Your task to perform on an android device: change notifications settings Image 0: 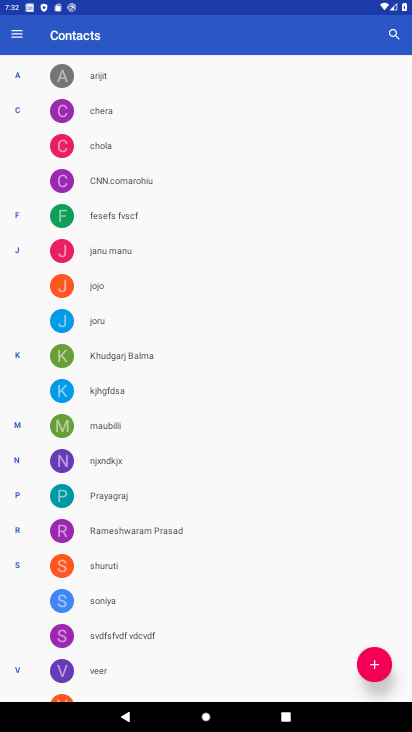
Step 0: press home button
Your task to perform on an android device: change notifications settings Image 1: 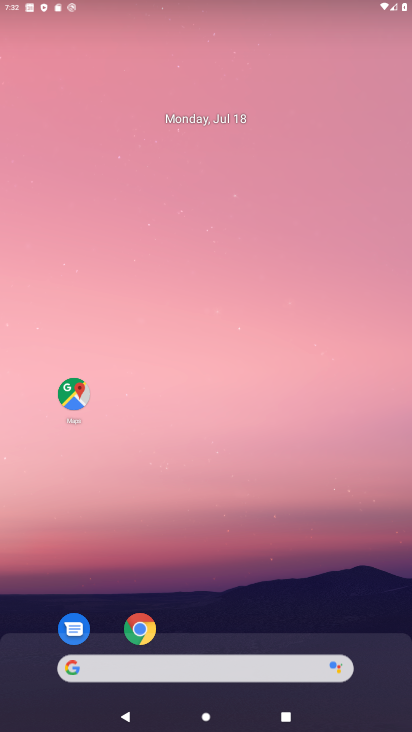
Step 1: drag from (32, 578) to (264, 90)
Your task to perform on an android device: change notifications settings Image 2: 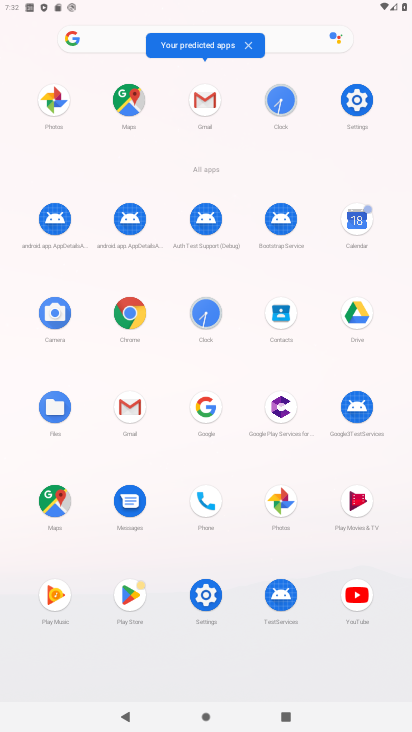
Step 2: click (349, 94)
Your task to perform on an android device: change notifications settings Image 3: 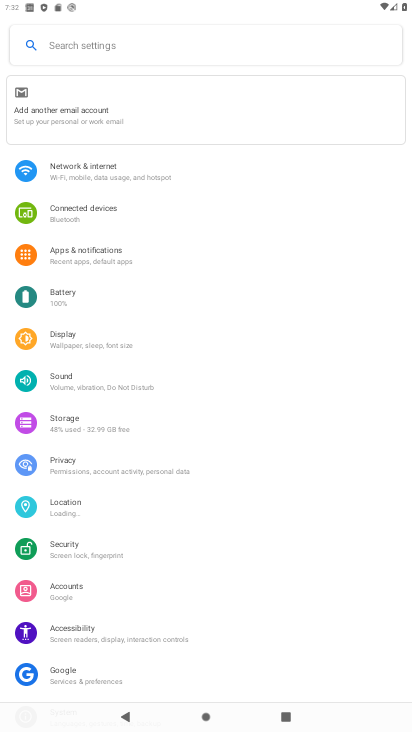
Step 3: click (52, 256)
Your task to perform on an android device: change notifications settings Image 4: 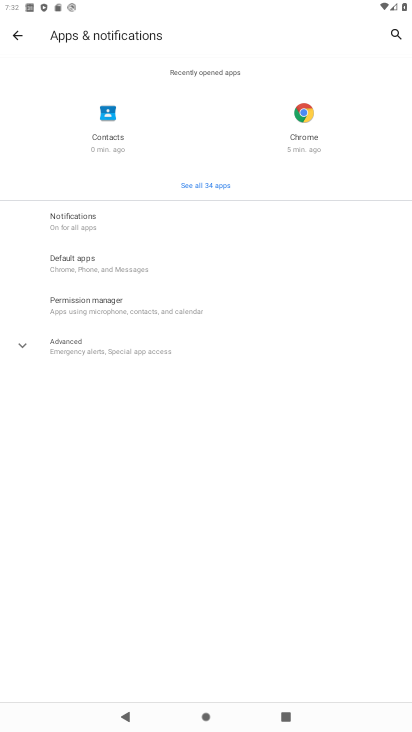
Step 4: click (121, 224)
Your task to perform on an android device: change notifications settings Image 5: 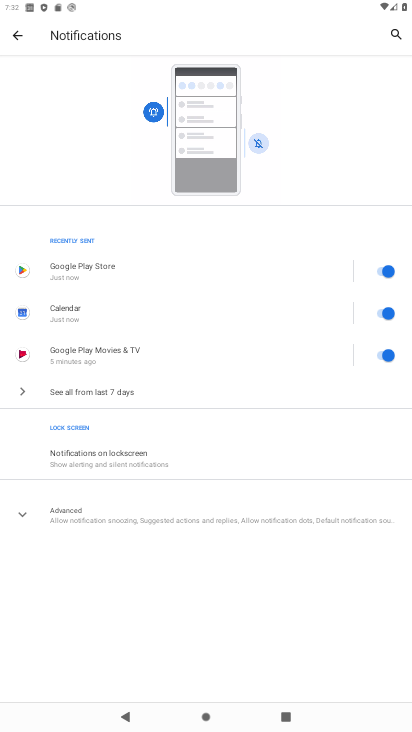
Step 5: click (389, 265)
Your task to perform on an android device: change notifications settings Image 6: 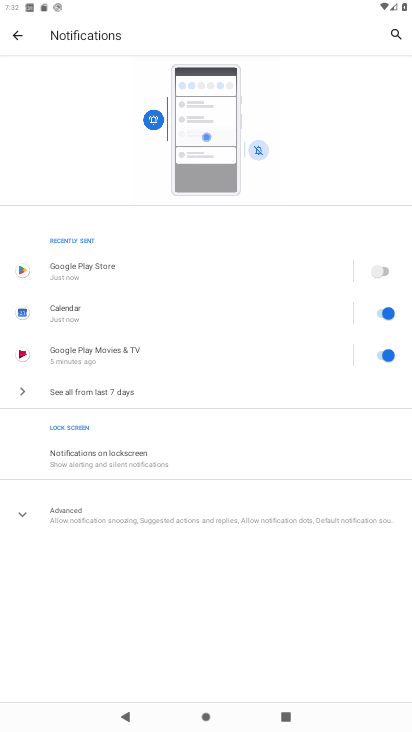
Step 6: task complete